Your task to perform on an android device: turn on bluetooth scan Image 0: 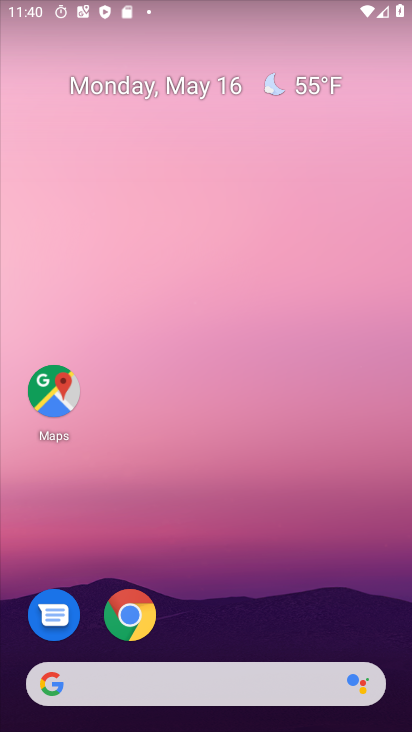
Step 0: drag from (263, 626) to (296, 377)
Your task to perform on an android device: turn on bluetooth scan Image 1: 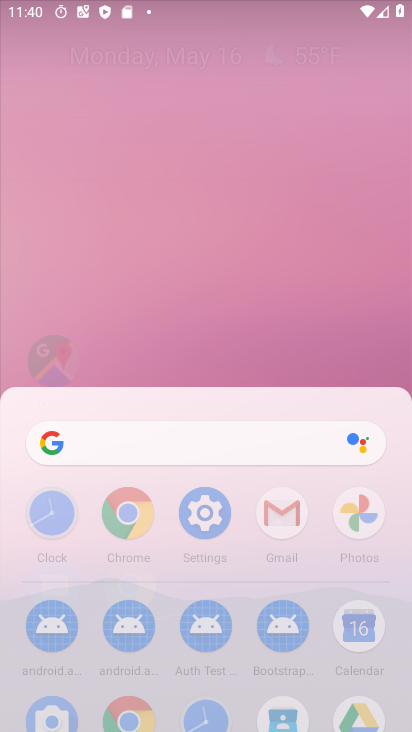
Step 1: drag from (308, 331) to (319, 87)
Your task to perform on an android device: turn on bluetooth scan Image 2: 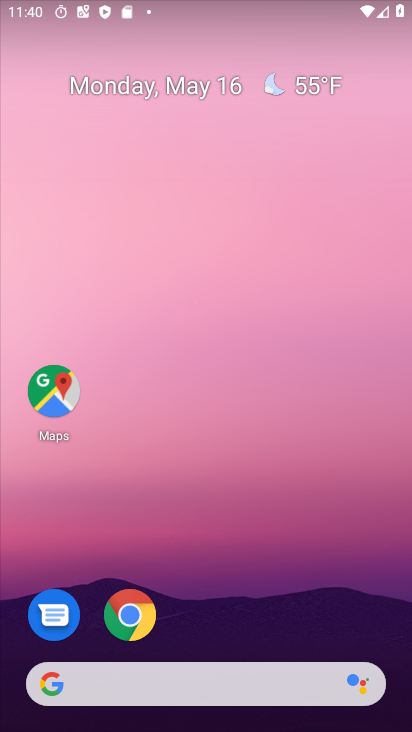
Step 2: drag from (199, 621) to (246, 65)
Your task to perform on an android device: turn on bluetooth scan Image 3: 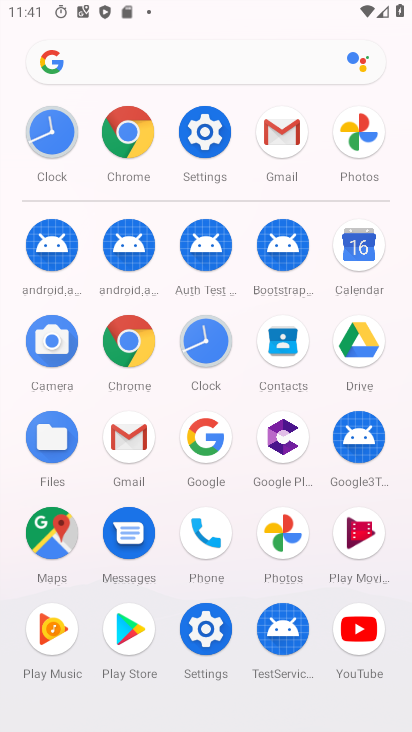
Step 3: click (196, 132)
Your task to perform on an android device: turn on bluetooth scan Image 4: 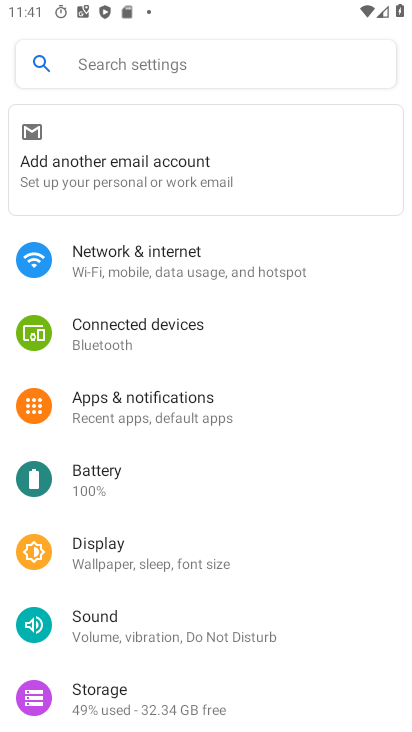
Step 4: drag from (256, 568) to (276, 169)
Your task to perform on an android device: turn on bluetooth scan Image 5: 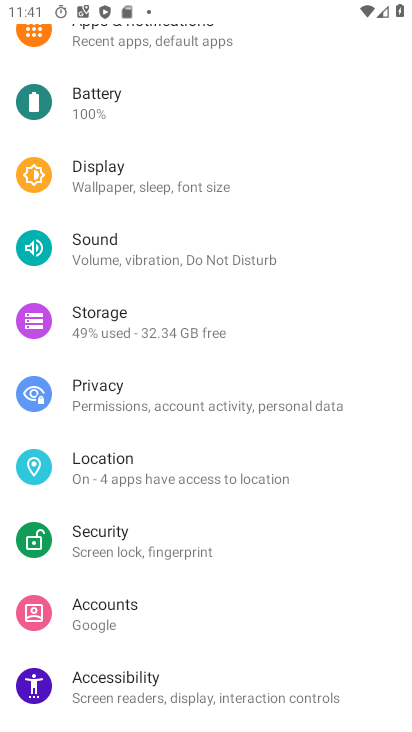
Step 5: click (127, 461)
Your task to perform on an android device: turn on bluetooth scan Image 6: 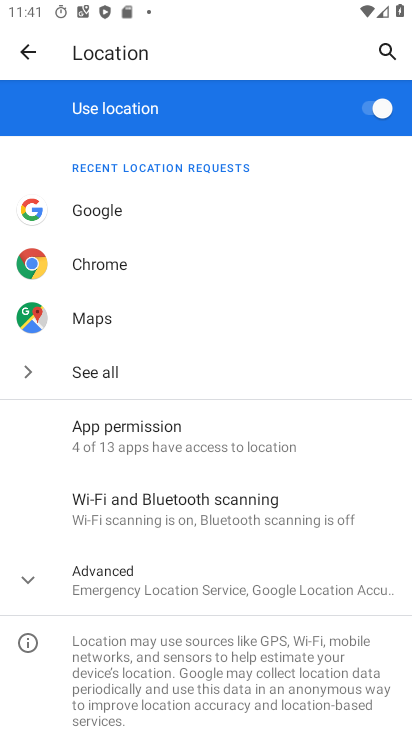
Step 6: click (228, 500)
Your task to perform on an android device: turn on bluetooth scan Image 7: 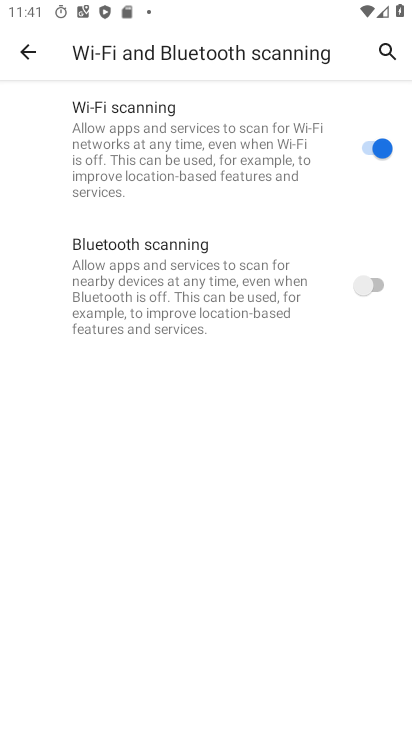
Step 7: click (375, 279)
Your task to perform on an android device: turn on bluetooth scan Image 8: 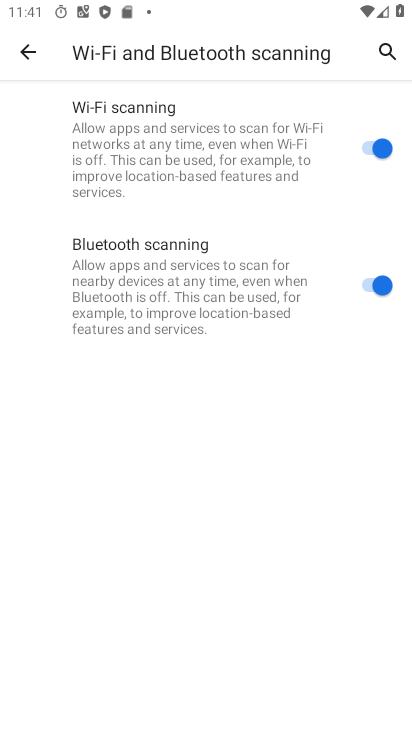
Step 8: task complete